Your task to perform on an android device: turn on priority inbox in the gmail app Image 0: 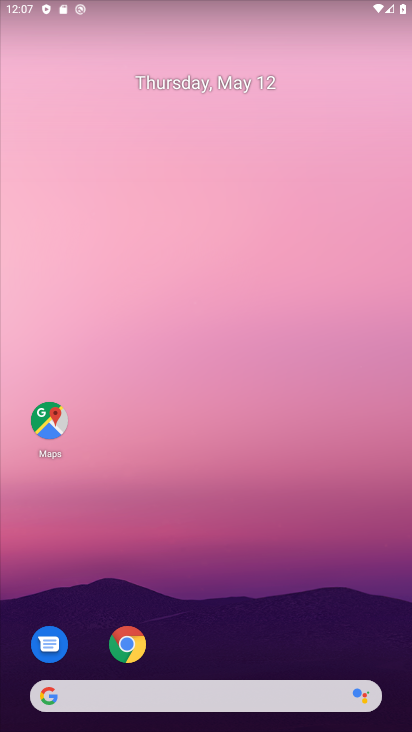
Step 0: drag from (199, 288) to (168, 619)
Your task to perform on an android device: turn on priority inbox in the gmail app Image 1: 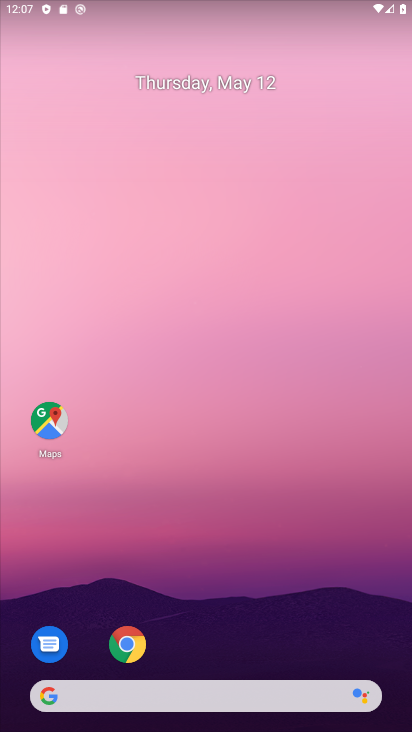
Step 1: drag from (254, 574) to (226, 7)
Your task to perform on an android device: turn on priority inbox in the gmail app Image 2: 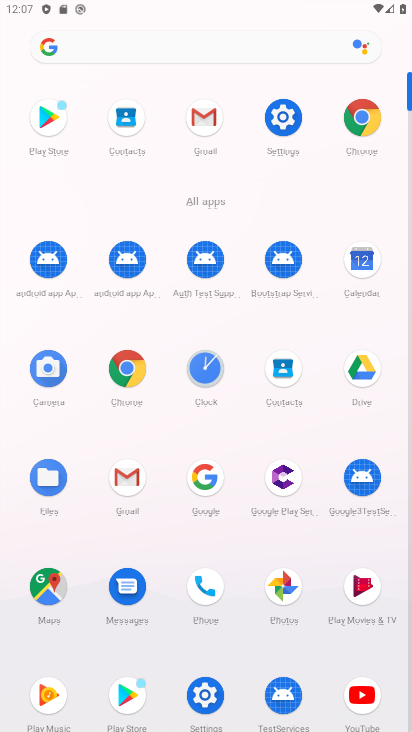
Step 2: click (113, 491)
Your task to perform on an android device: turn on priority inbox in the gmail app Image 3: 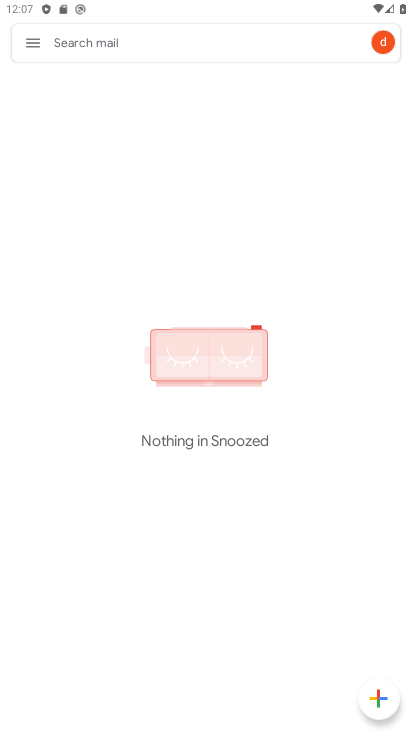
Step 3: click (33, 42)
Your task to perform on an android device: turn on priority inbox in the gmail app Image 4: 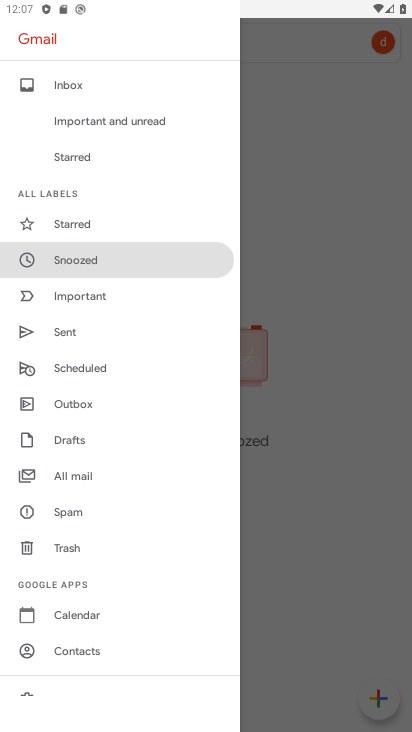
Step 4: drag from (141, 588) to (118, 322)
Your task to perform on an android device: turn on priority inbox in the gmail app Image 5: 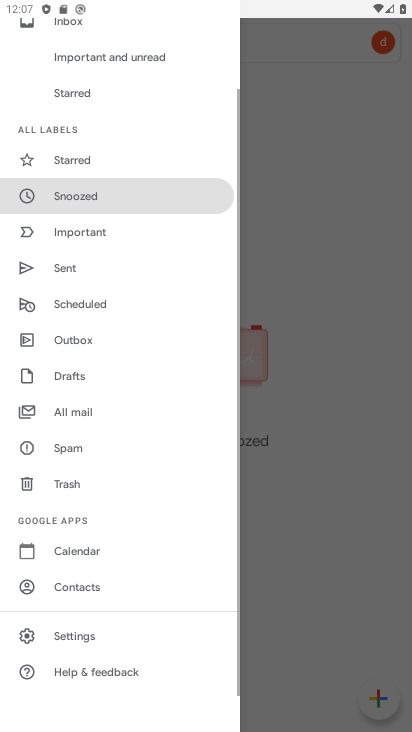
Step 5: click (68, 642)
Your task to perform on an android device: turn on priority inbox in the gmail app Image 6: 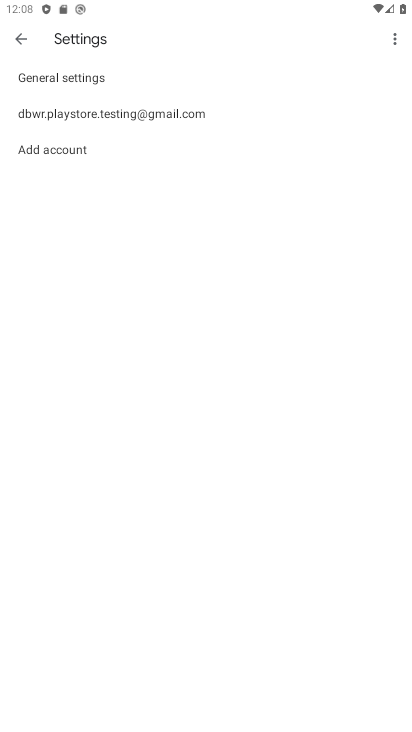
Step 6: click (110, 115)
Your task to perform on an android device: turn on priority inbox in the gmail app Image 7: 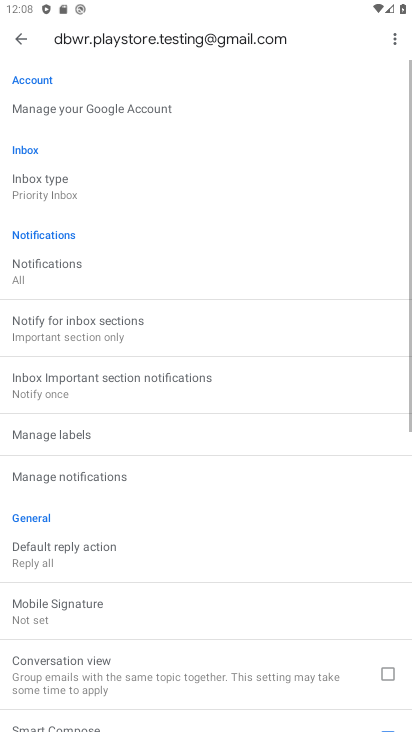
Step 7: click (56, 184)
Your task to perform on an android device: turn on priority inbox in the gmail app Image 8: 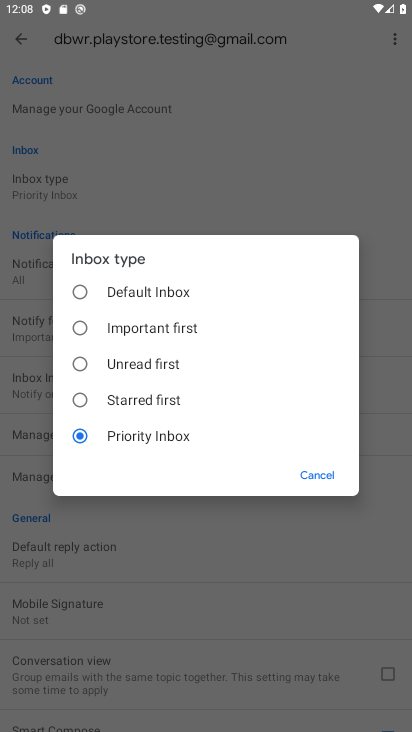
Step 8: task complete